Your task to perform on an android device: Check the weather Image 0: 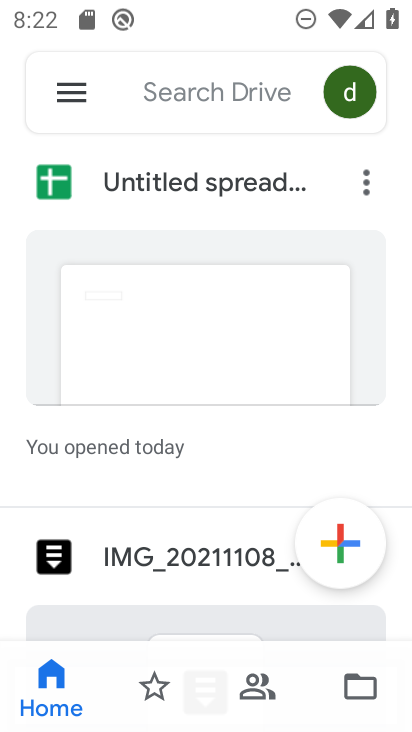
Step 0: press home button
Your task to perform on an android device: Check the weather Image 1: 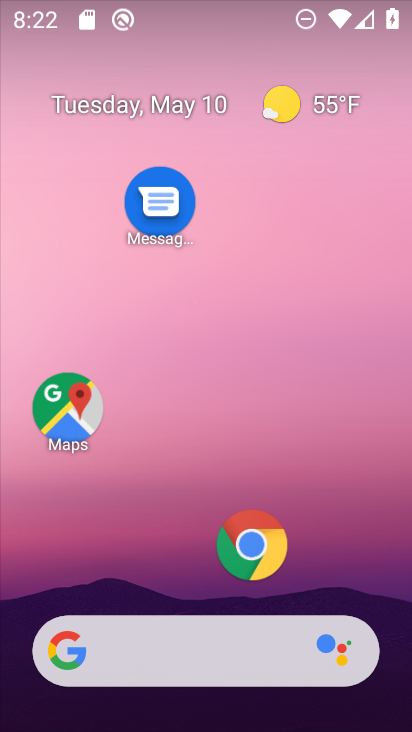
Step 1: drag from (202, 578) to (199, 255)
Your task to perform on an android device: Check the weather Image 2: 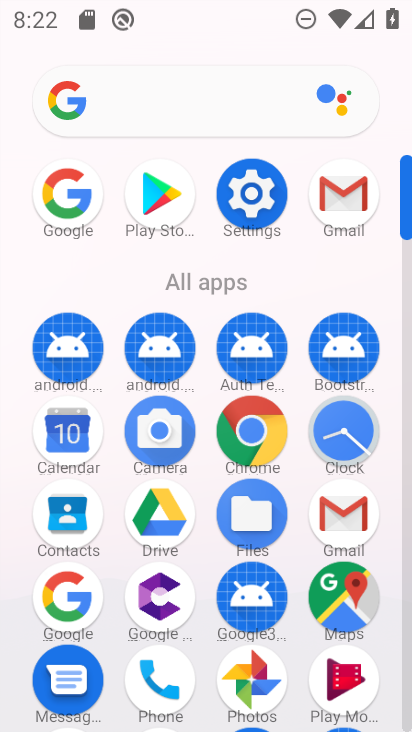
Step 2: click (73, 588)
Your task to perform on an android device: Check the weather Image 3: 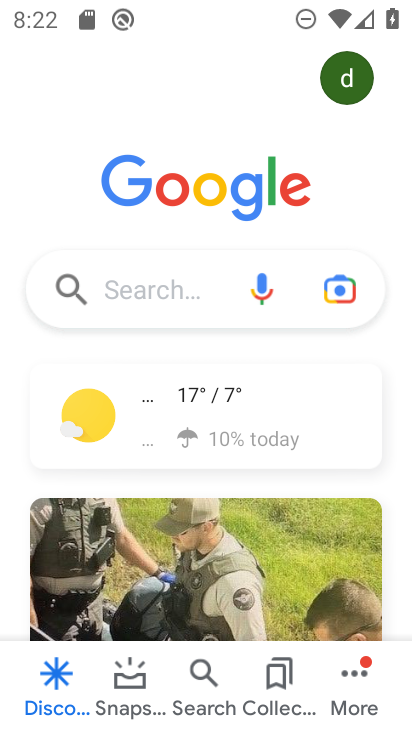
Step 3: click (169, 279)
Your task to perform on an android device: Check the weather Image 4: 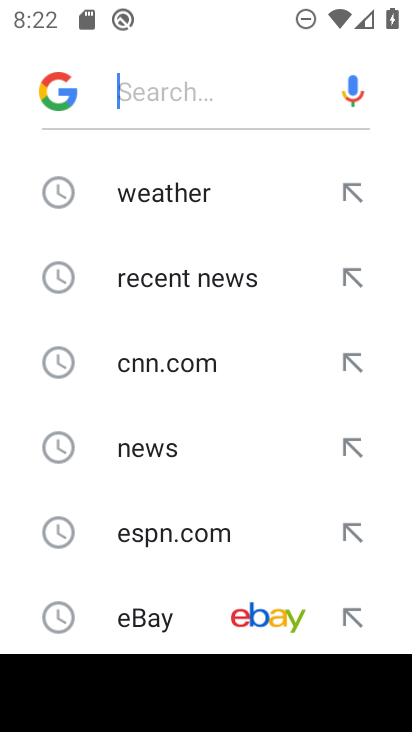
Step 4: click (175, 178)
Your task to perform on an android device: Check the weather Image 5: 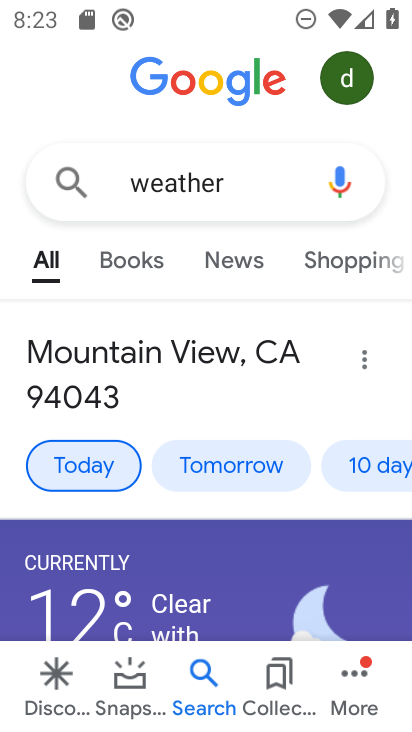
Step 5: task complete